Your task to perform on an android device: change keyboard looks Image 0: 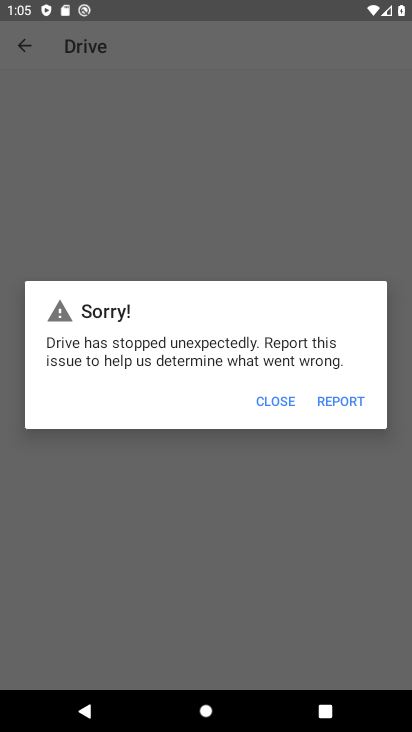
Step 0: press home button
Your task to perform on an android device: change keyboard looks Image 1: 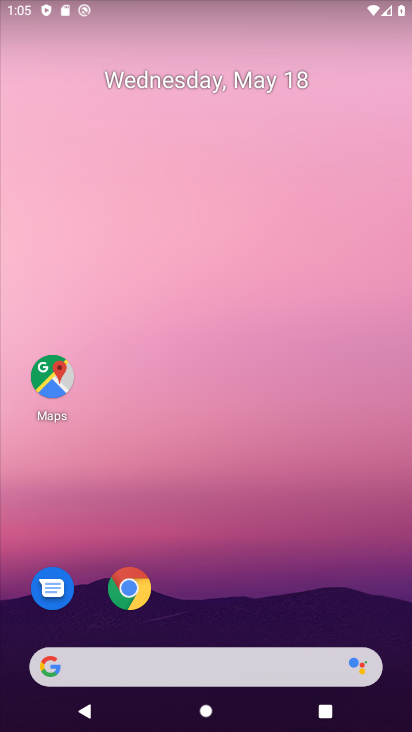
Step 1: drag from (366, 570) to (348, 131)
Your task to perform on an android device: change keyboard looks Image 2: 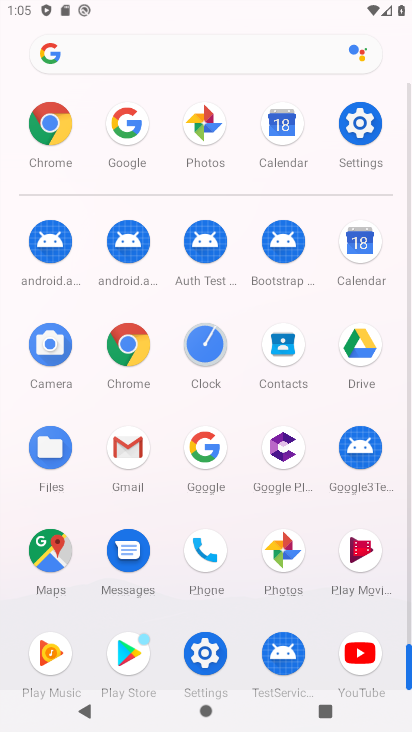
Step 2: click (357, 129)
Your task to perform on an android device: change keyboard looks Image 3: 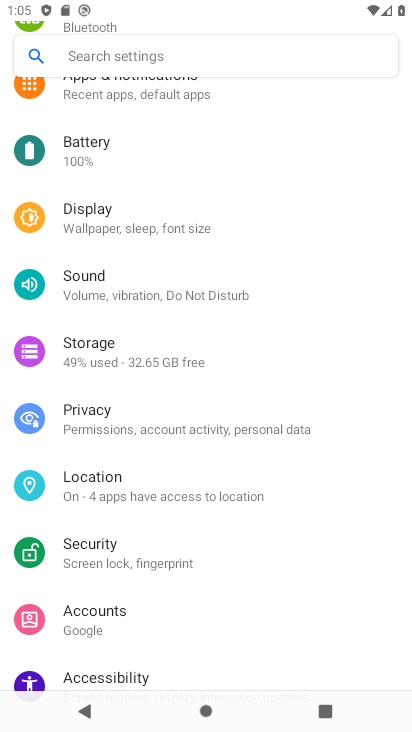
Step 3: drag from (355, 589) to (357, 384)
Your task to perform on an android device: change keyboard looks Image 4: 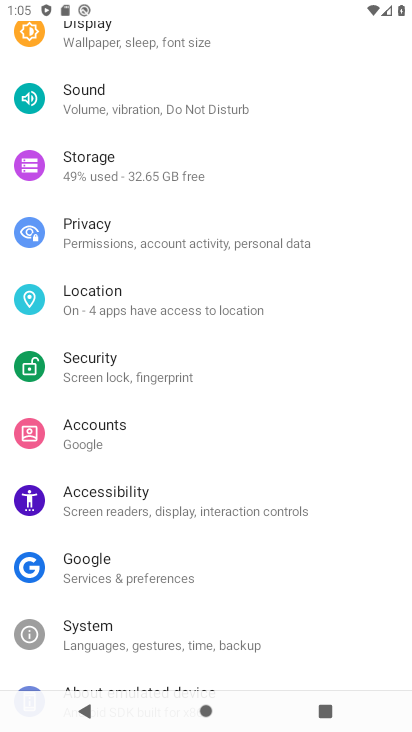
Step 4: drag from (348, 619) to (336, 440)
Your task to perform on an android device: change keyboard looks Image 5: 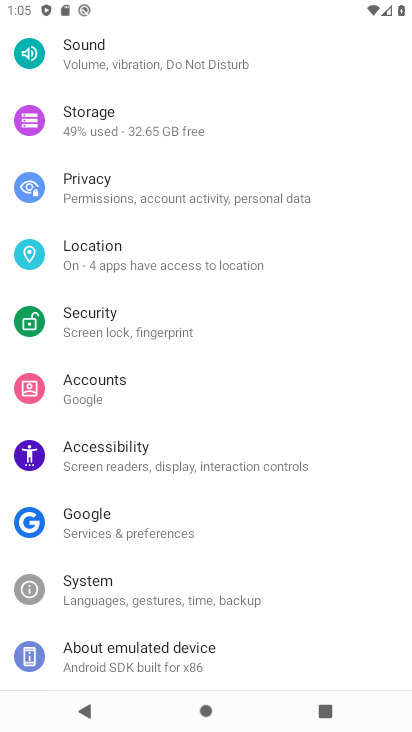
Step 5: drag from (337, 291) to (338, 449)
Your task to perform on an android device: change keyboard looks Image 6: 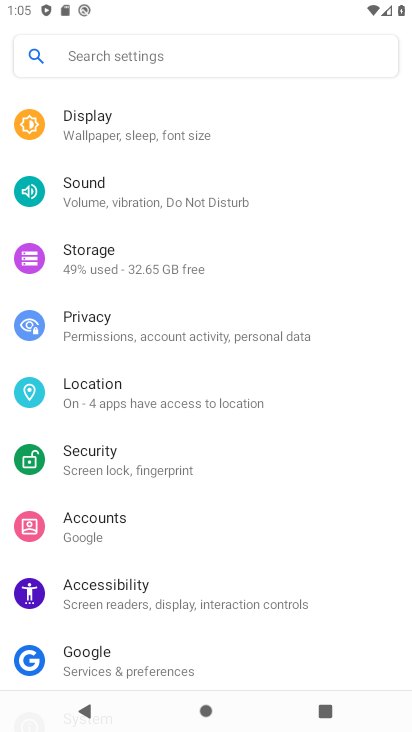
Step 6: drag from (357, 283) to (350, 412)
Your task to perform on an android device: change keyboard looks Image 7: 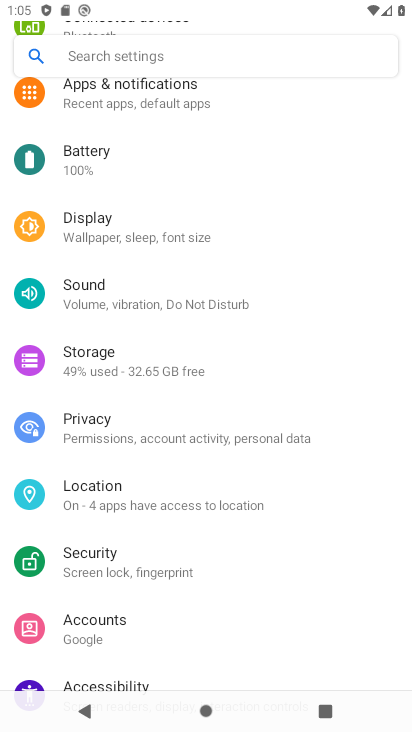
Step 7: drag from (332, 252) to (319, 413)
Your task to perform on an android device: change keyboard looks Image 8: 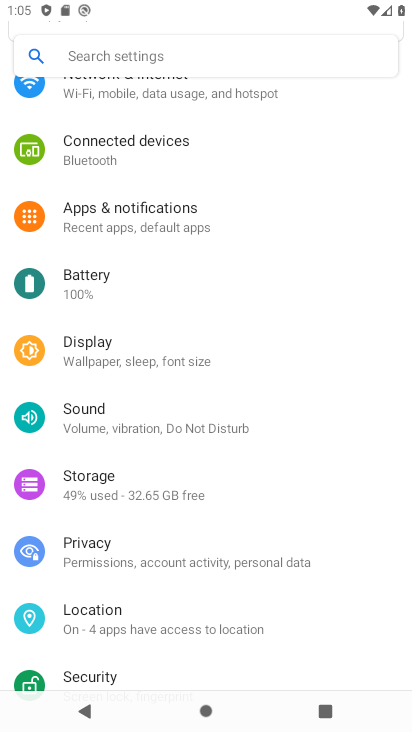
Step 8: drag from (306, 244) to (309, 379)
Your task to perform on an android device: change keyboard looks Image 9: 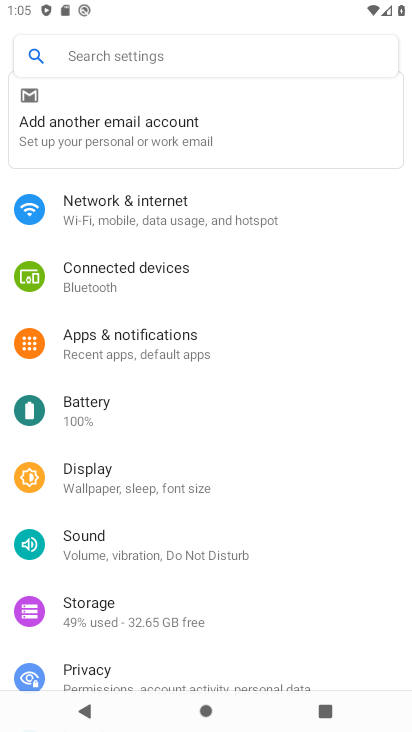
Step 9: drag from (314, 233) to (301, 392)
Your task to perform on an android device: change keyboard looks Image 10: 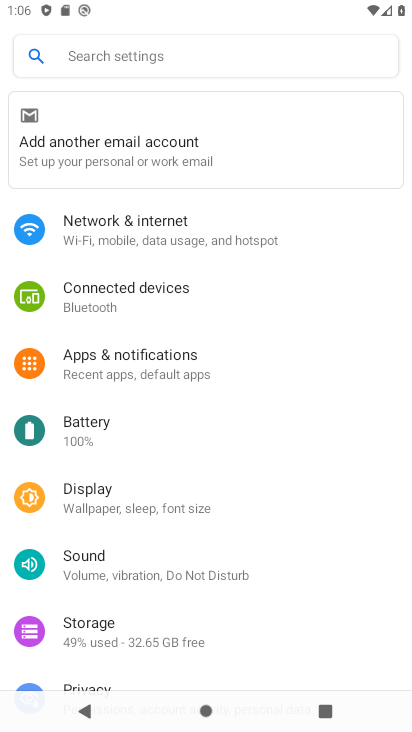
Step 10: drag from (351, 545) to (354, 380)
Your task to perform on an android device: change keyboard looks Image 11: 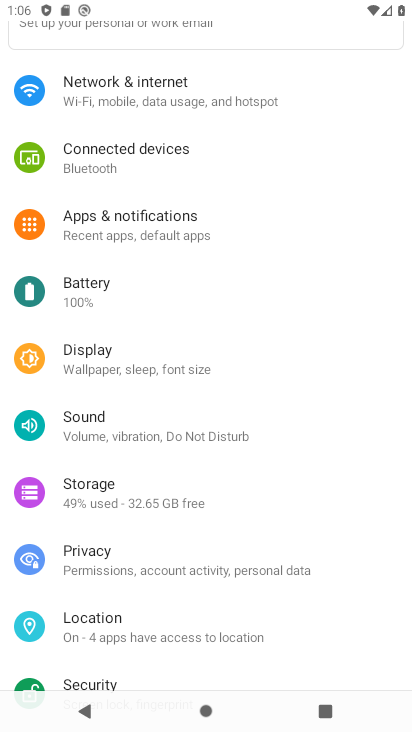
Step 11: drag from (352, 601) to (332, 343)
Your task to perform on an android device: change keyboard looks Image 12: 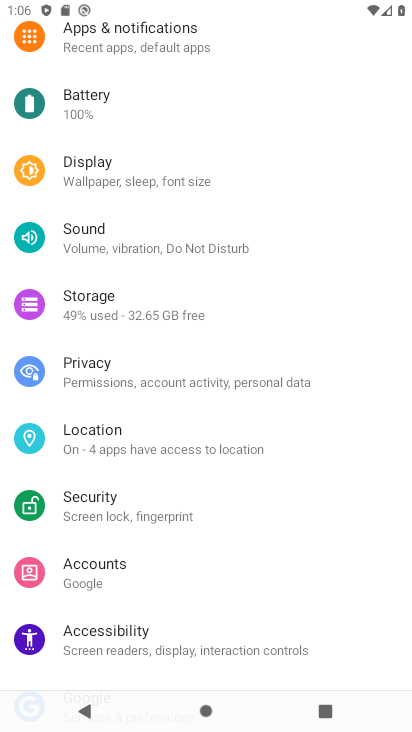
Step 12: drag from (307, 586) to (306, 403)
Your task to perform on an android device: change keyboard looks Image 13: 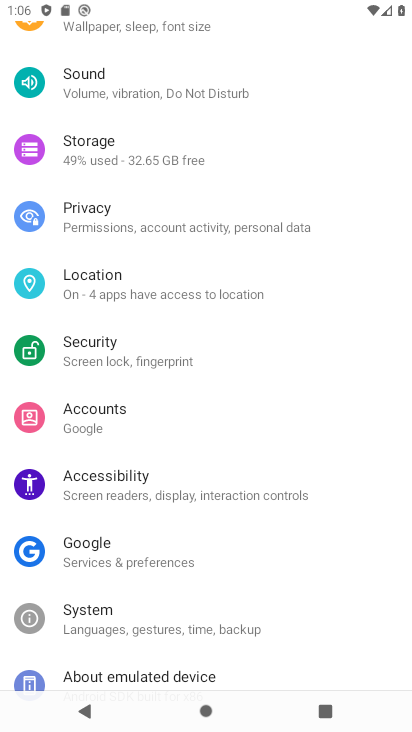
Step 13: drag from (298, 613) to (308, 431)
Your task to perform on an android device: change keyboard looks Image 14: 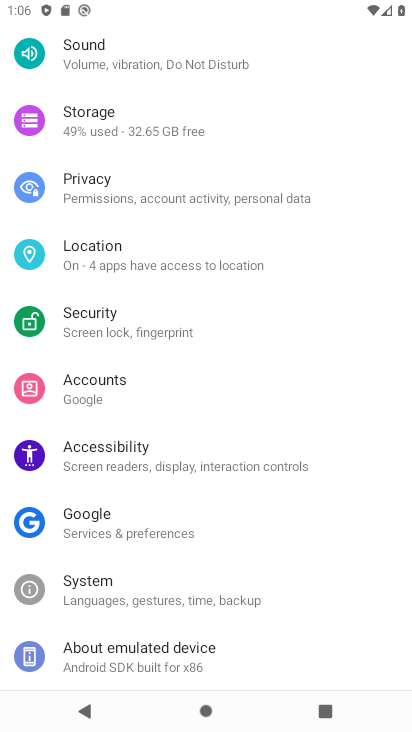
Step 14: click (234, 609)
Your task to perform on an android device: change keyboard looks Image 15: 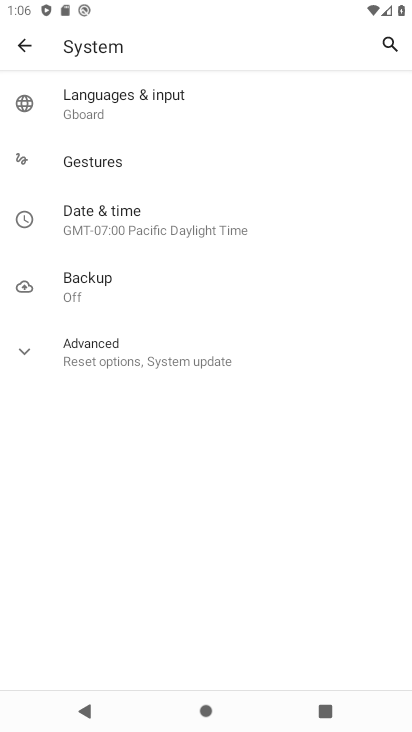
Step 15: click (149, 100)
Your task to perform on an android device: change keyboard looks Image 16: 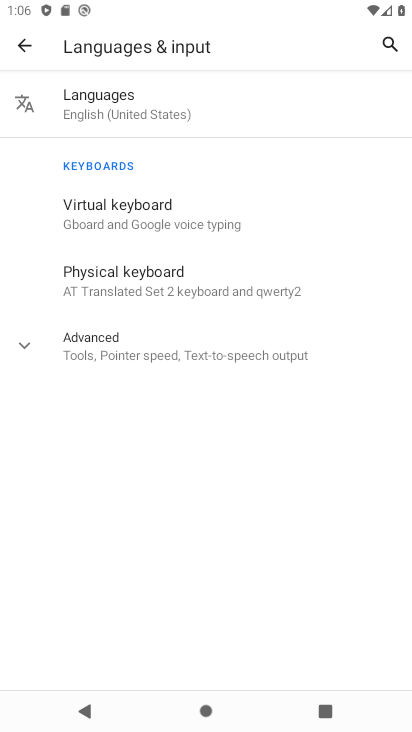
Step 16: click (141, 201)
Your task to perform on an android device: change keyboard looks Image 17: 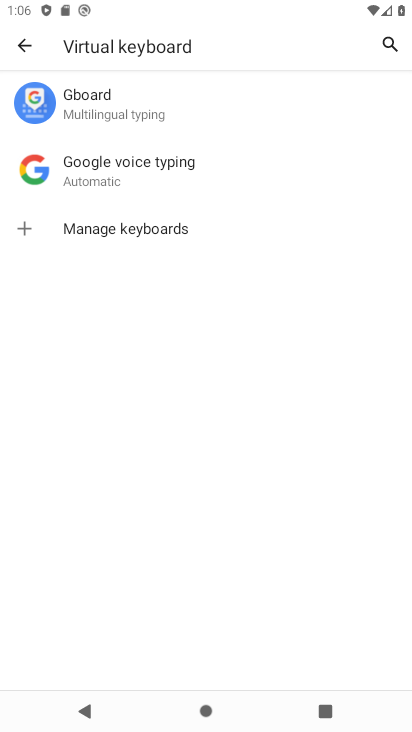
Step 17: click (116, 113)
Your task to perform on an android device: change keyboard looks Image 18: 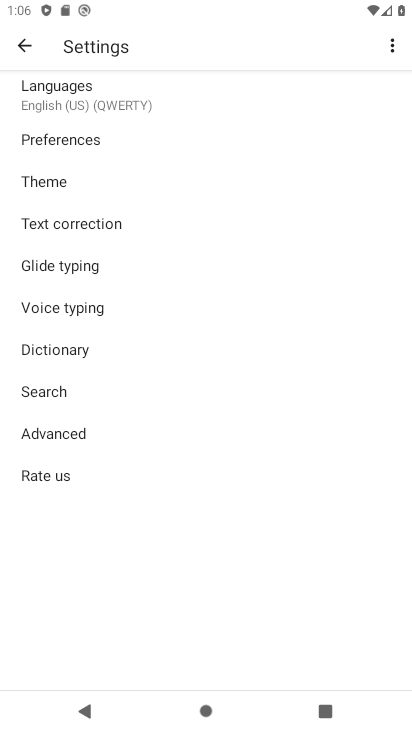
Step 18: click (76, 184)
Your task to perform on an android device: change keyboard looks Image 19: 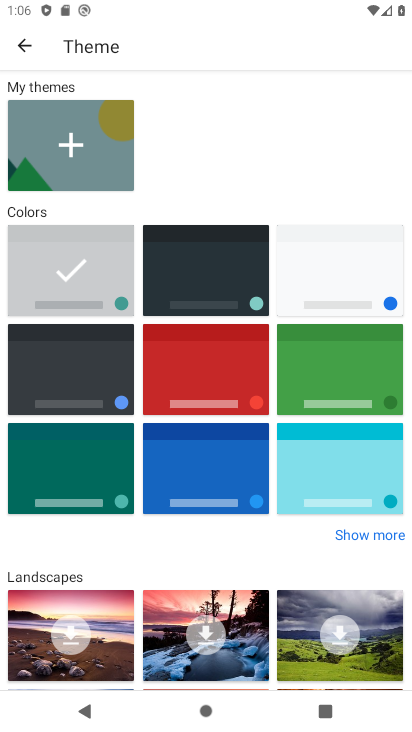
Step 19: click (201, 389)
Your task to perform on an android device: change keyboard looks Image 20: 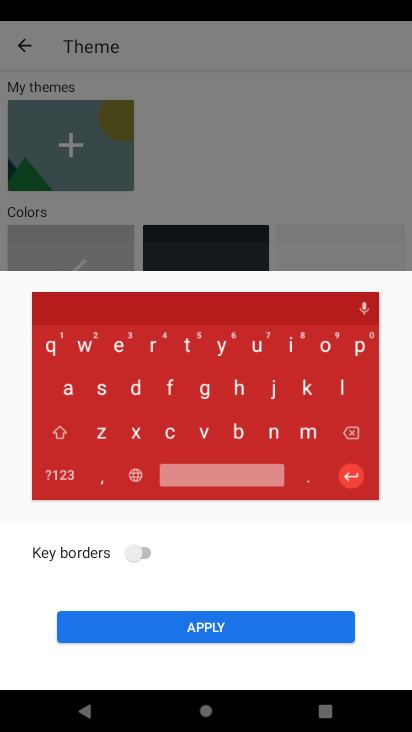
Step 20: click (271, 624)
Your task to perform on an android device: change keyboard looks Image 21: 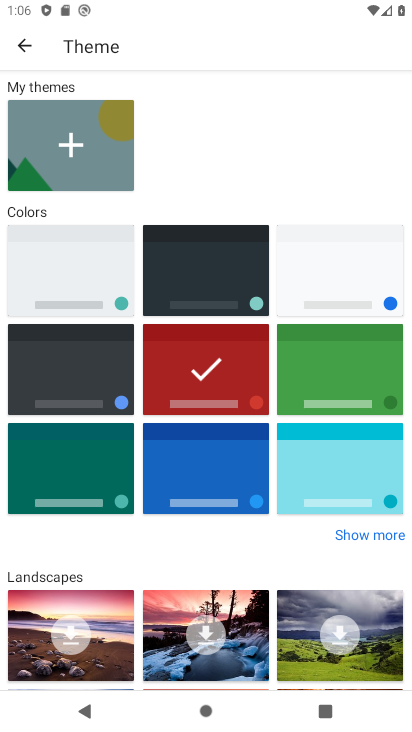
Step 21: task complete